Your task to perform on an android device: snooze an email in the gmail app Image 0: 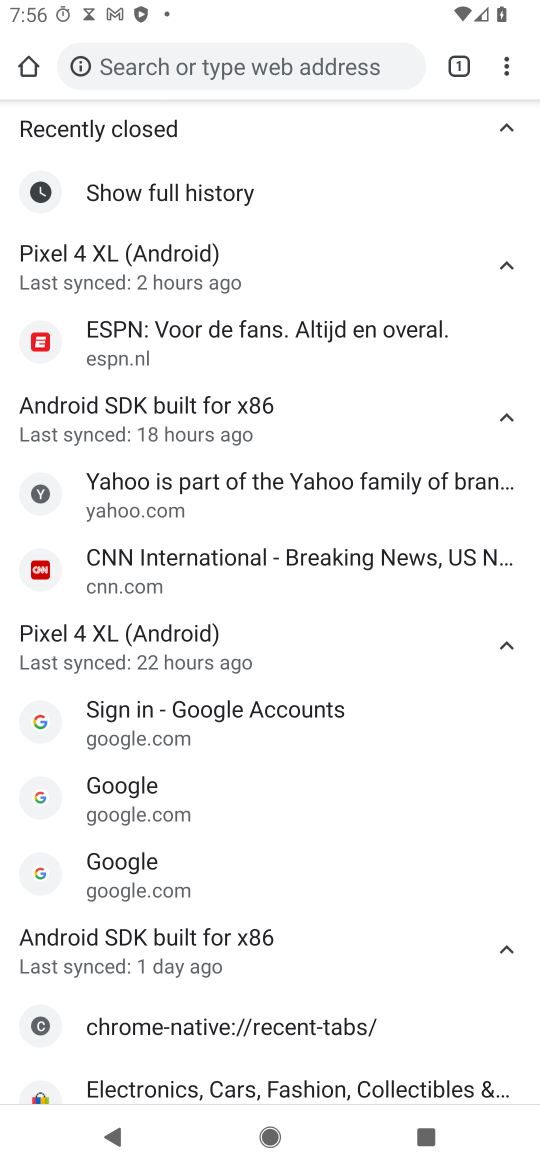
Step 0: press home button
Your task to perform on an android device: snooze an email in the gmail app Image 1: 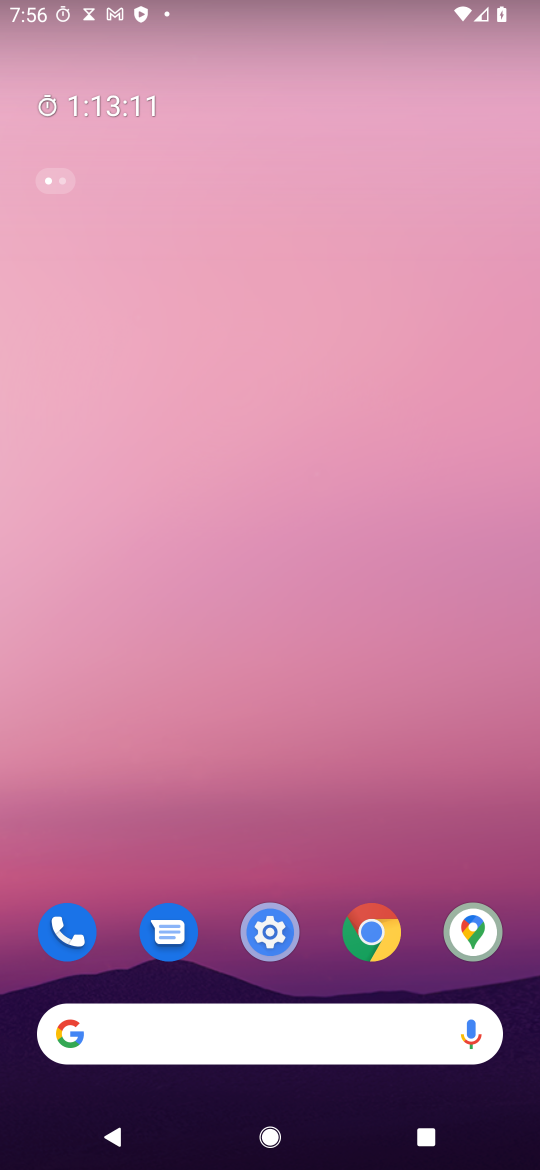
Step 1: drag from (356, 866) to (352, 51)
Your task to perform on an android device: snooze an email in the gmail app Image 2: 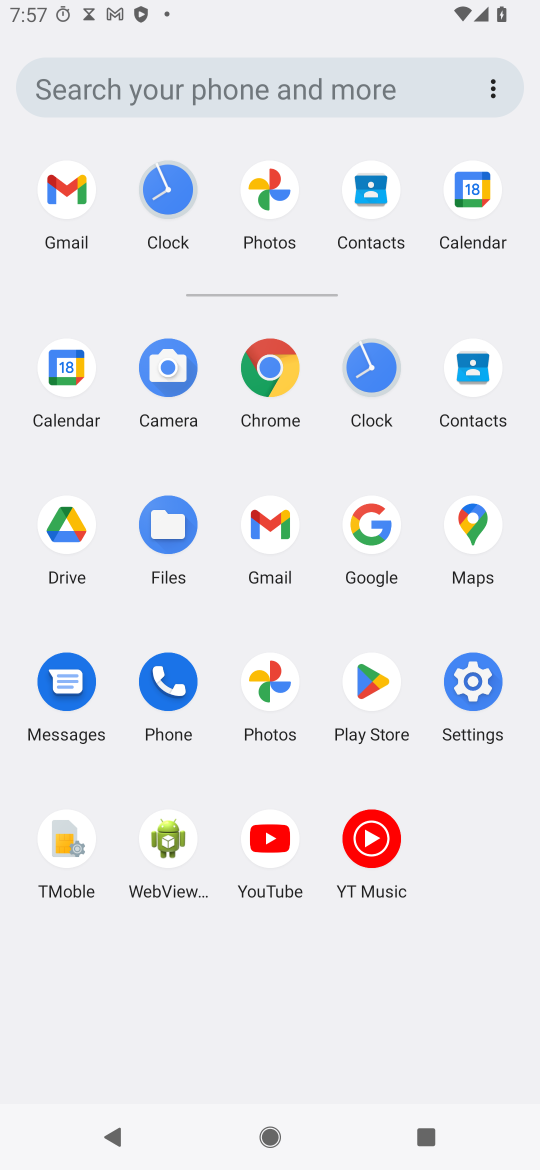
Step 2: click (264, 515)
Your task to perform on an android device: snooze an email in the gmail app Image 3: 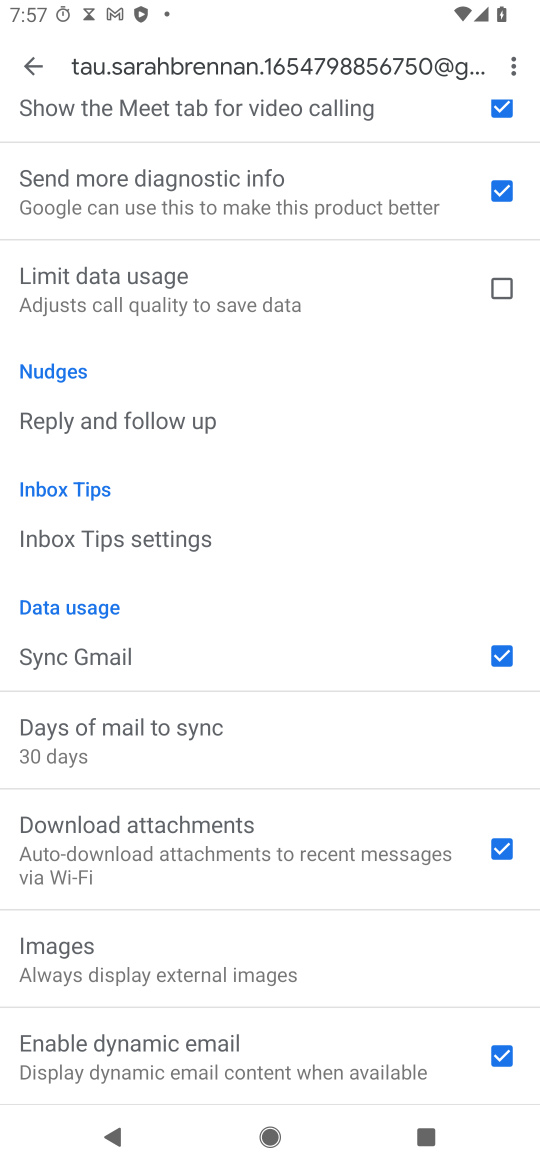
Step 3: task complete